Your task to perform on an android device: toggle pop-ups in chrome Image 0: 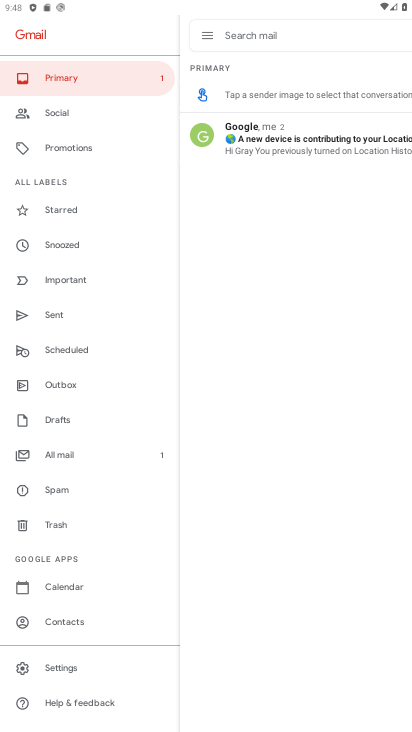
Step 0: press home button
Your task to perform on an android device: toggle pop-ups in chrome Image 1: 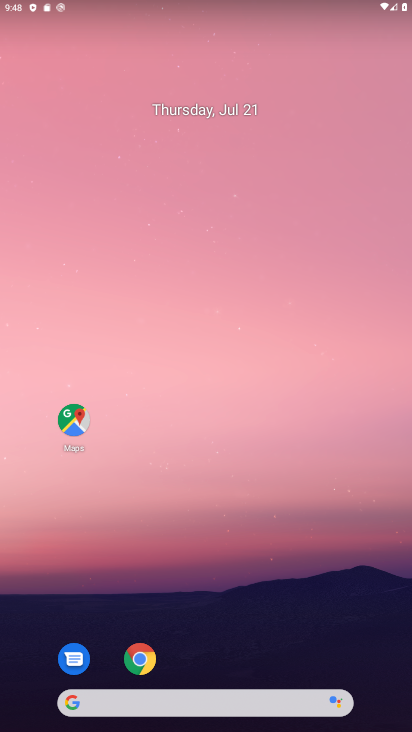
Step 1: drag from (254, 205) to (254, 0)
Your task to perform on an android device: toggle pop-ups in chrome Image 2: 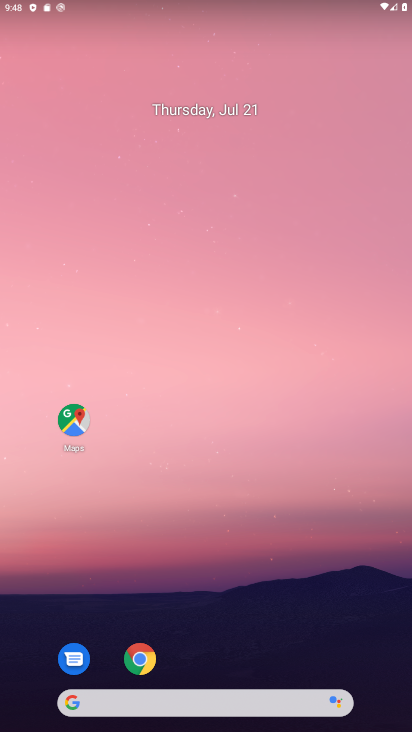
Step 2: drag from (272, 677) to (236, 87)
Your task to perform on an android device: toggle pop-ups in chrome Image 3: 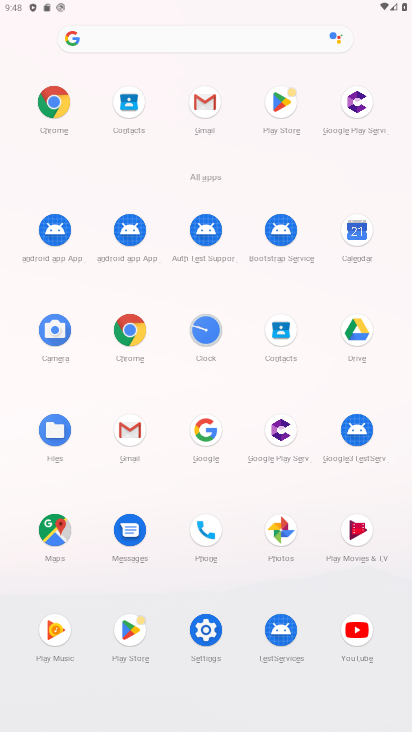
Step 3: click (57, 104)
Your task to perform on an android device: toggle pop-ups in chrome Image 4: 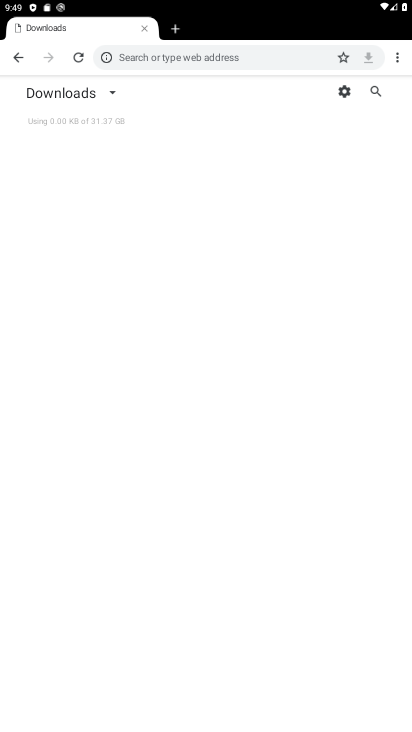
Step 4: drag from (398, 47) to (286, 268)
Your task to perform on an android device: toggle pop-ups in chrome Image 5: 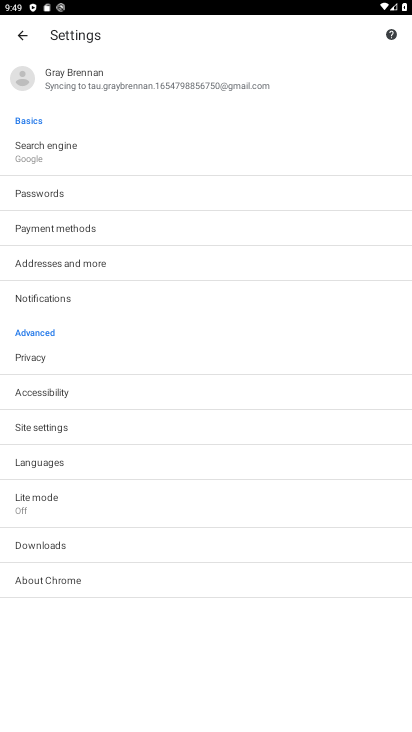
Step 5: click (49, 427)
Your task to perform on an android device: toggle pop-ups in chrome Image 6: 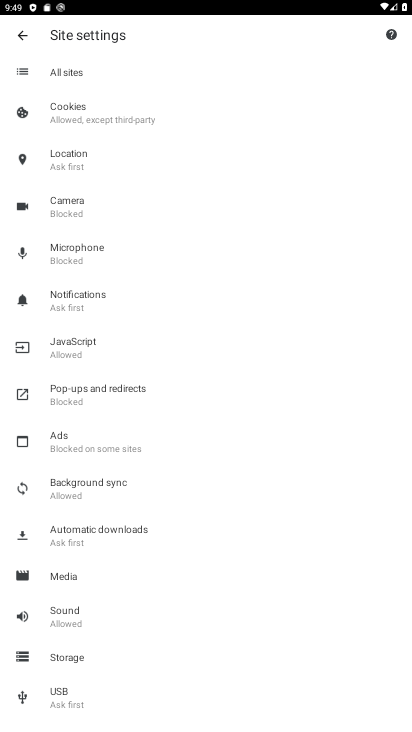
Step 6: click (101, 388)
Your task to perform on an android device: toggle pop-ups in chrome Image 7: 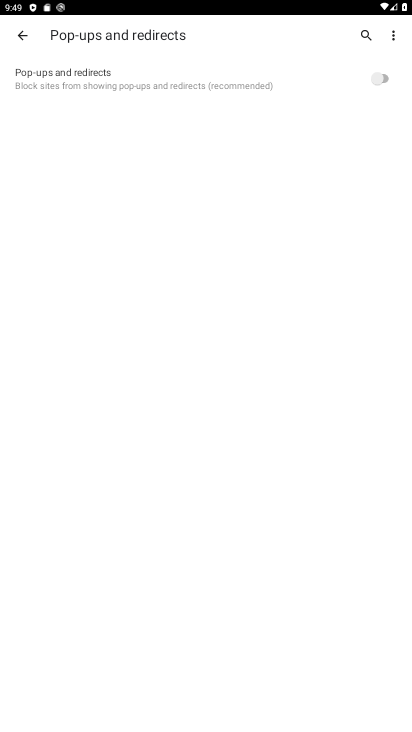
Step 7: click (377, 75)
Your task to perform on an android device: toggle pop-ups in chrome Image 8: 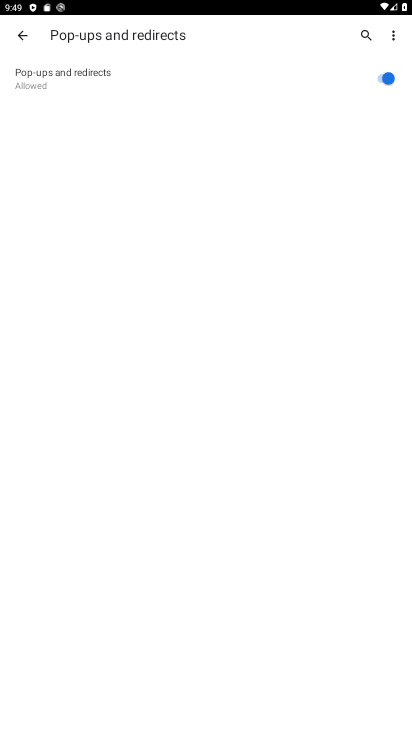
Step 8: task complete